Your task to perform on an android device: Go to Reddit.com Image 0: 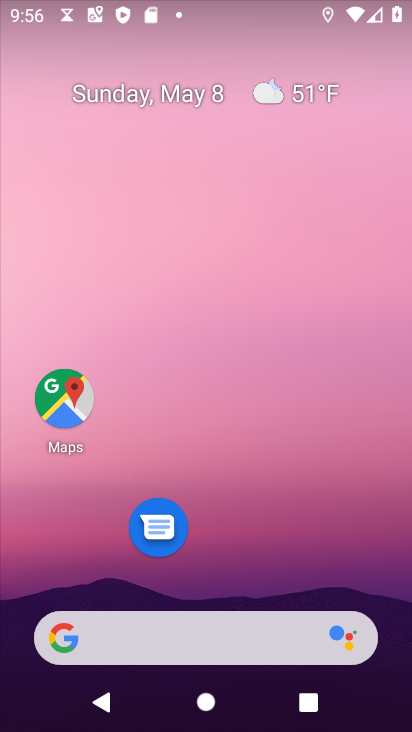
Step 0: drag from (299, 518) to (260, 78)
Your task to perform on an android device: Go to Reddit.com Image 1: 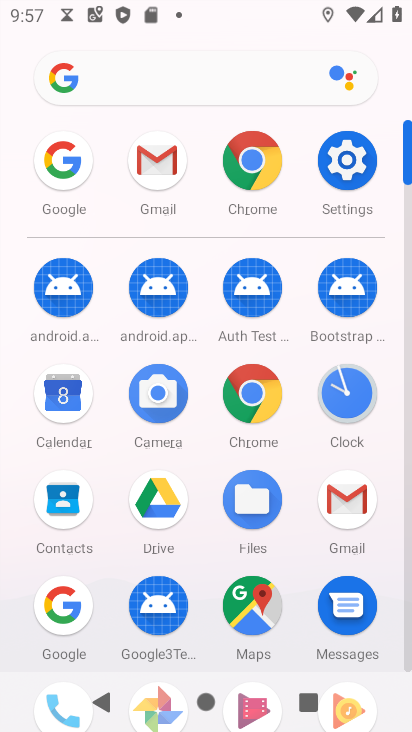
Step 1: click (251, 161)
Your task to perform on an android device: Go to Reddit.com Image 2: 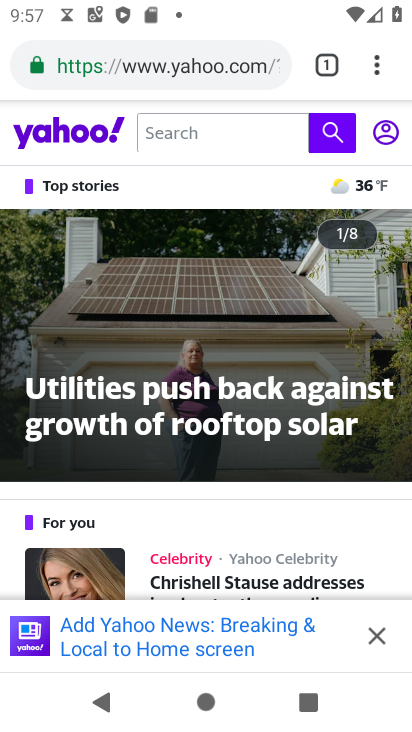
Step 2: click (224, 64)
Your task to perform on an android device: Go to Reddit.com Image 3: 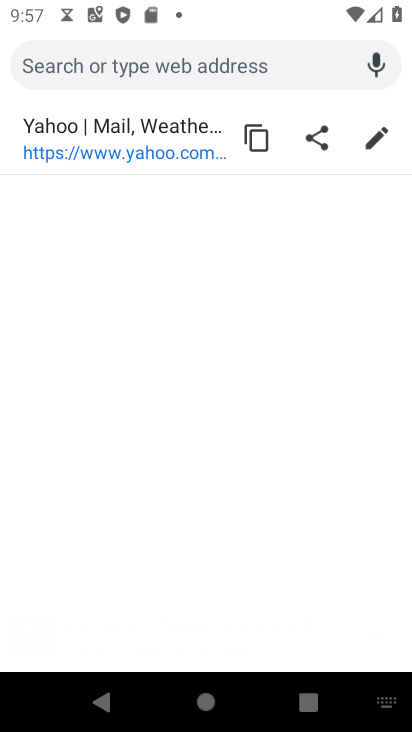
Step 3: type "Reddit.com"
Your task to perform on an android device: Go to Reddit.com Image 4: 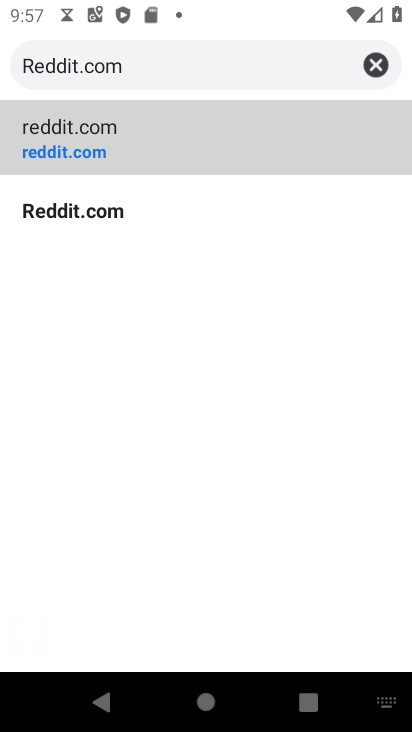
Step 4: click (105, 217)
Your task to perform on an android device: Go to Reddit.com Image 5: 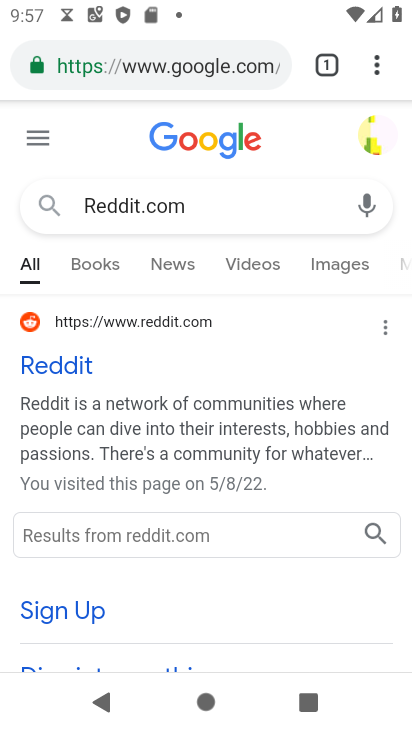
Step 5: click (65, 366)
Your task to perform on an android device: Go to Reddit.com Image 6: 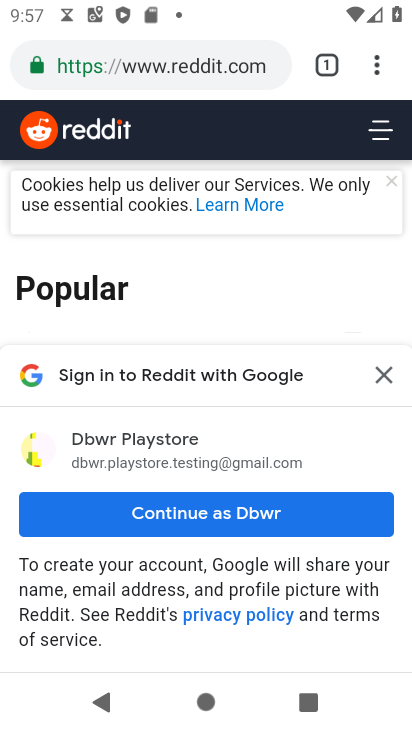
Step 6: task complete